Your task to perform on an android device: open sync settings in chrome Image 0: 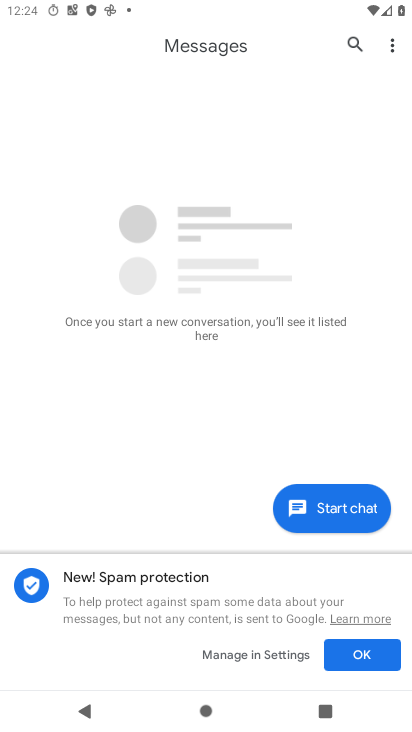
Step 0: press home button
Your task to perform on an android device: open sync settings in chrome Image 1: 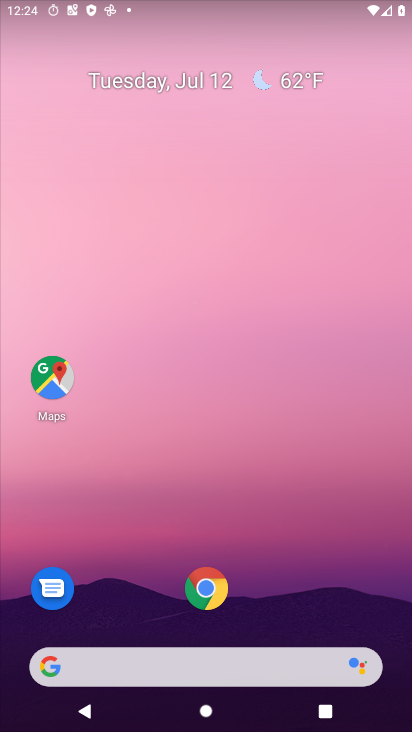
Step 1: drag from (181, 620) to (167, 85)
Your task to perform on an android device: open sync settings in chrome Image 2: 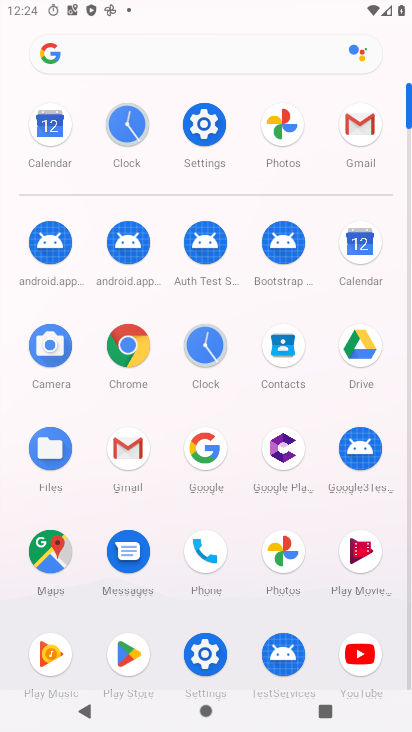
Step 2: click (126, 368)
Your task to perform on an android device: open sync settings in chrome Image 3: 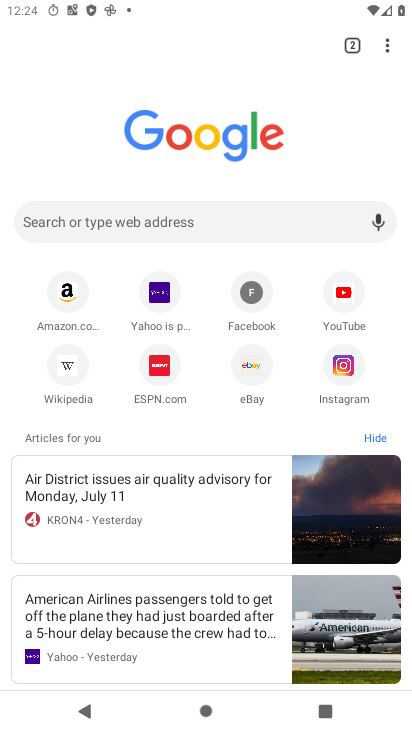
Step 3: click (383, 49)
Your task to perform on an android device: open sync settings in chrome Image 4: 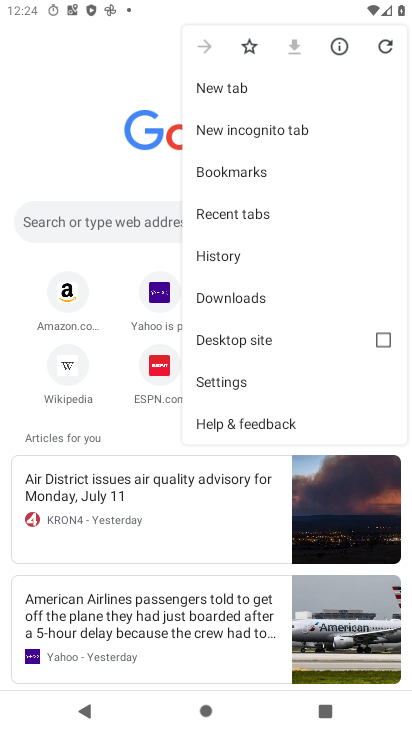
Step 4: click (236, 389)
Your task to perform on an android device: open sync settings in chrome Image 5: 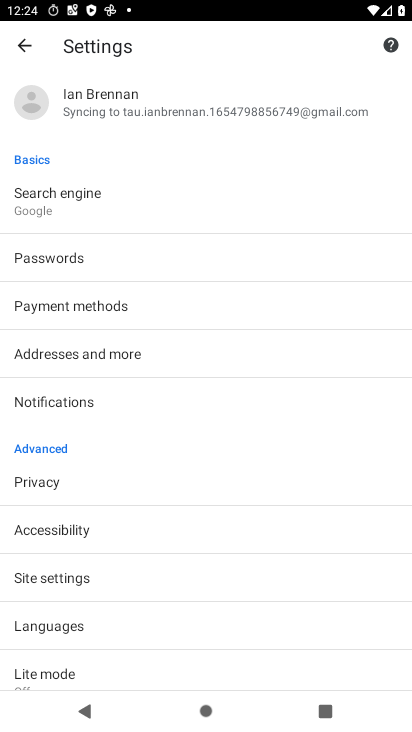
Step 5: click (131, 106)
Your task to perform on an android device: open sync settings in chrome Image 6: 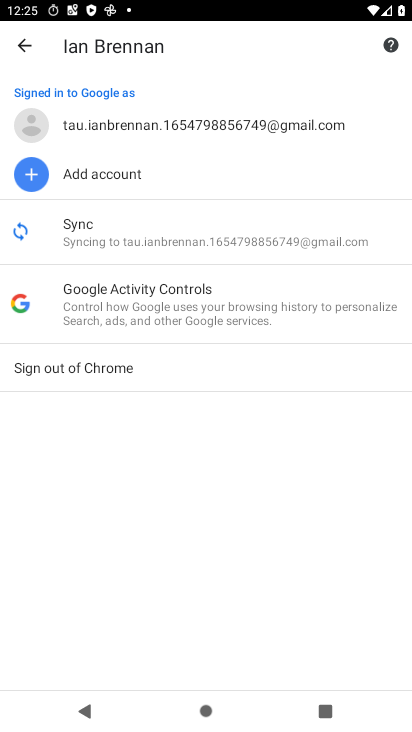
Step 6: click (93, 228)
Your task to perform on an android device: open sync settings in chrome Image 7: 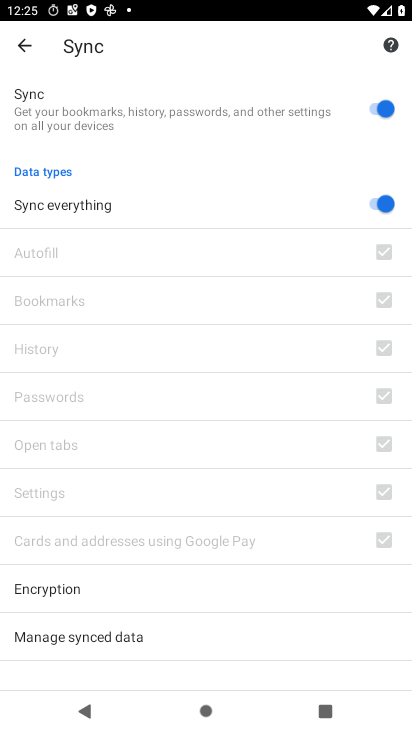
Step 7: task complete